Your task to perform on an android device: open chrome privacy settings Image 0: 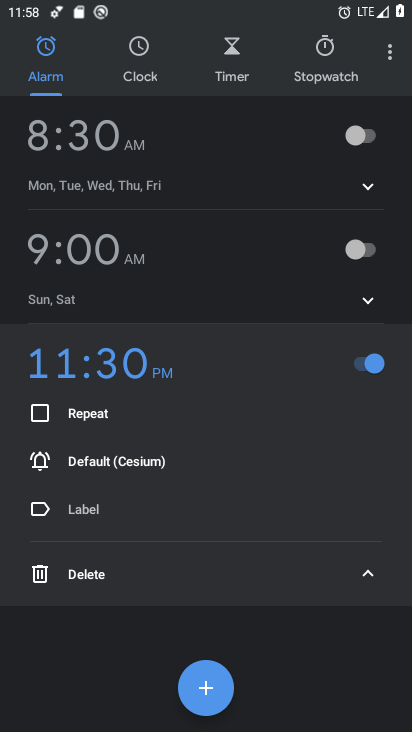
Step 0: press home button
Your task to perform on an android device: open chrome privacy settings Image 1: 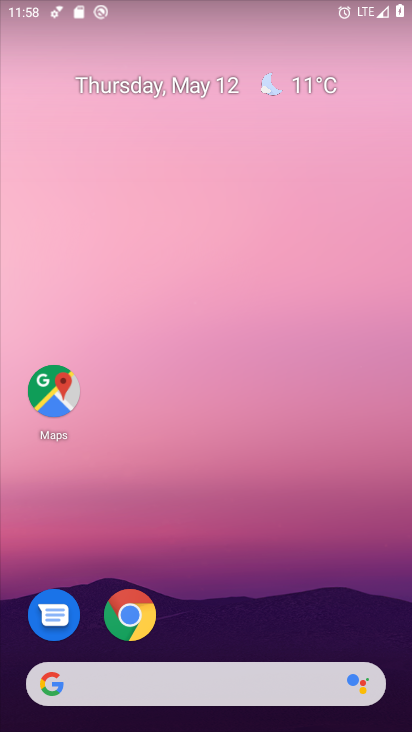
Step 1: click (129, 621)
Your task to perform on an android device: open chrome privacy settings Image 2: 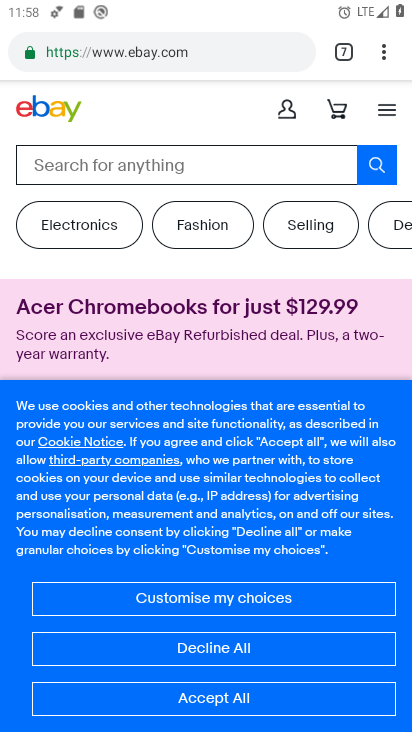
Step 2: click (386, 52)
Your task to perform on an android device: open chrome privacy settings Image 3: 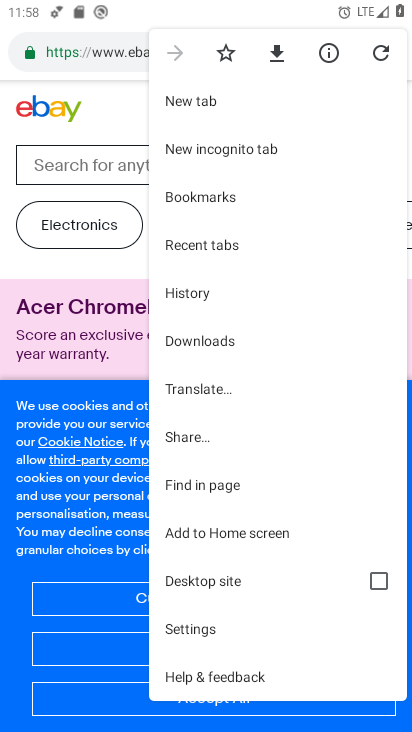
Step 3: click (212, 624)
Your task to perform on an android device: open chrome privacy settings Image 4: 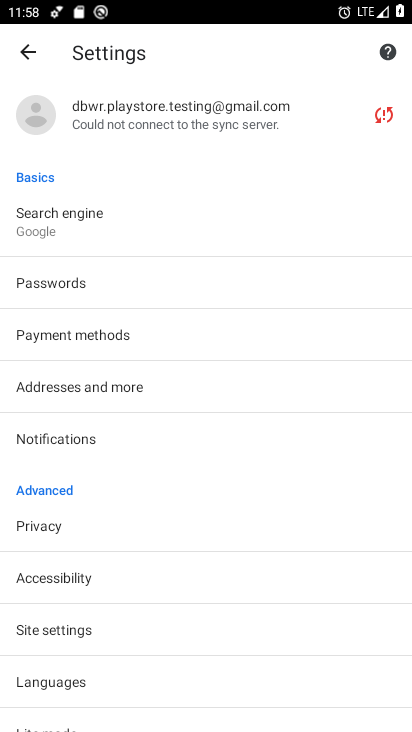
Step 4: click (112, 525)
Your task to perform on an android device: open chrome privacy settings Image 5: 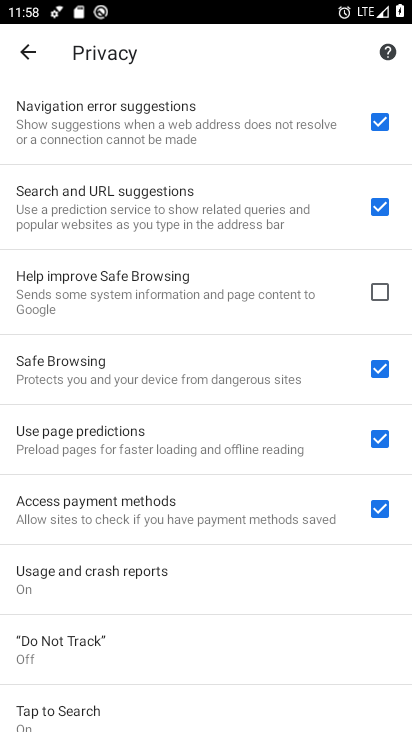
Step 5: task complete